Your task to perform on an android device: Open Google Maps Image 0: 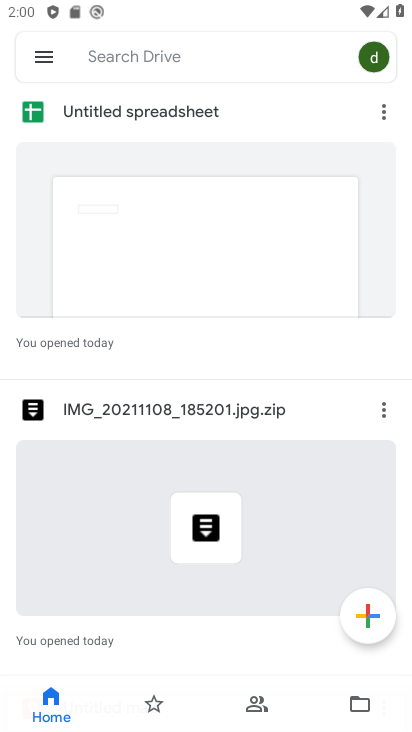
Step 0: press home button
Your task to perform on an android device: Open Google Maps Image 1: 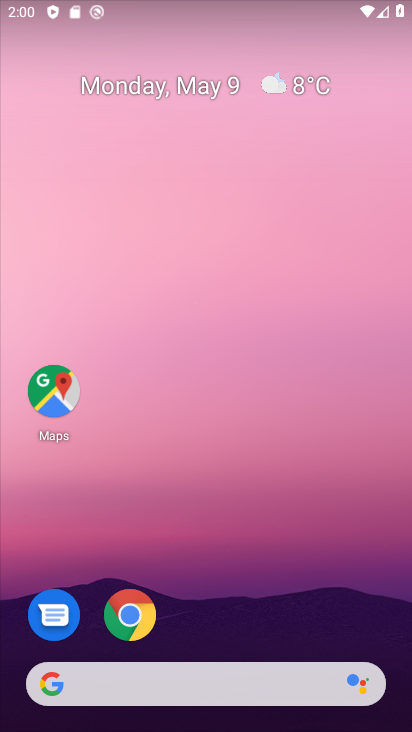
Step 1: drag from (231, 629) to (172, 116)
Your task to perform on an android device: Open Google Maps Image 2: 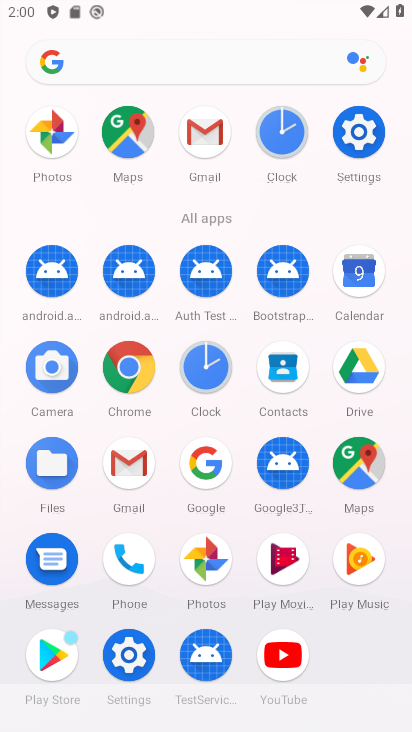
Step 2: click (117, 139)
Your task to perform on an android device: Open Google Maps Image 3: 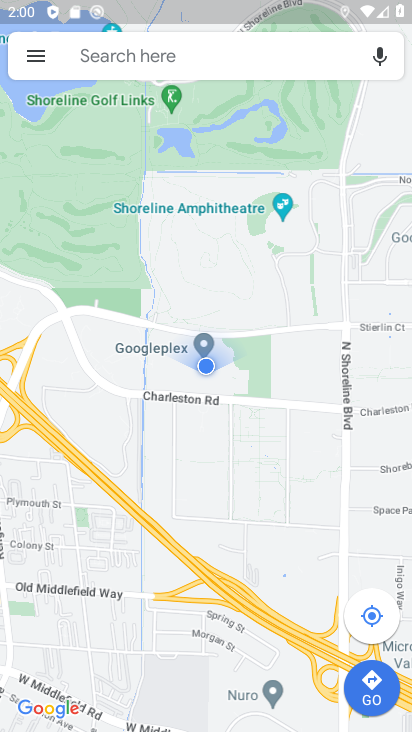
Step 3: task complete